Your task to perform on an android device: Open the stopwatch Image 0: 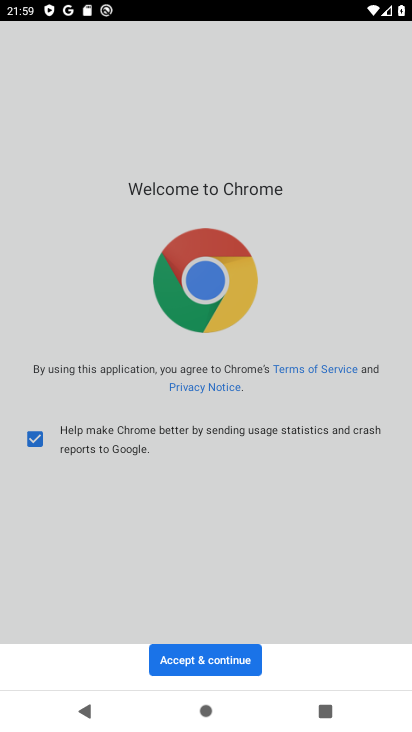
Step 0: press home button
Your task to perform on an android device: Open the stopwatch Image 1: 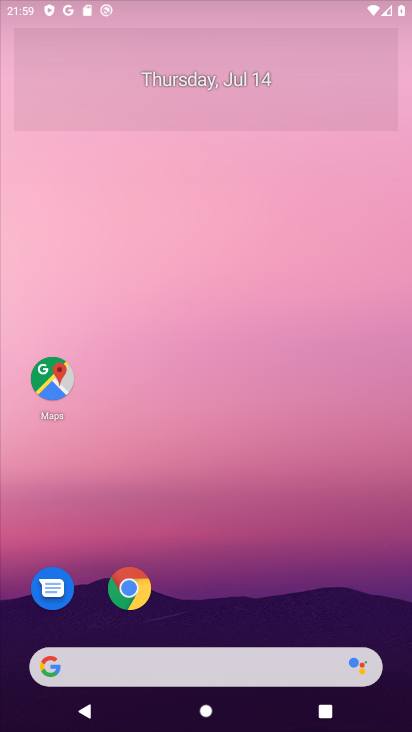
Step 1: drag from (231, 570) to (259, 87)
Your task to perform on an android device: Open the stopwatch Image 2: 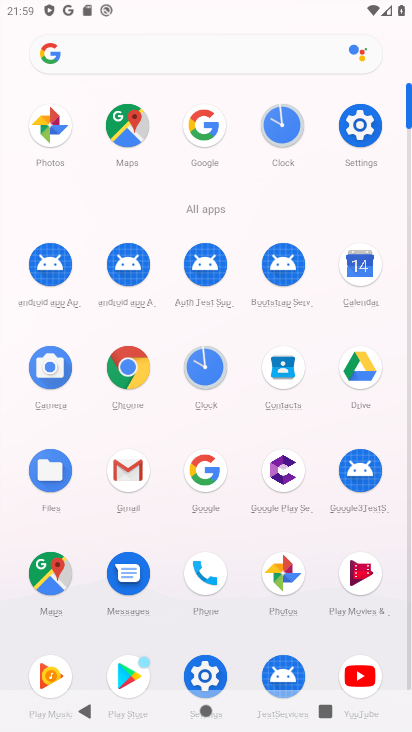
Step 2: click (201, 367)
Your task to perform on an android device: Open the stopwatch Image 3: 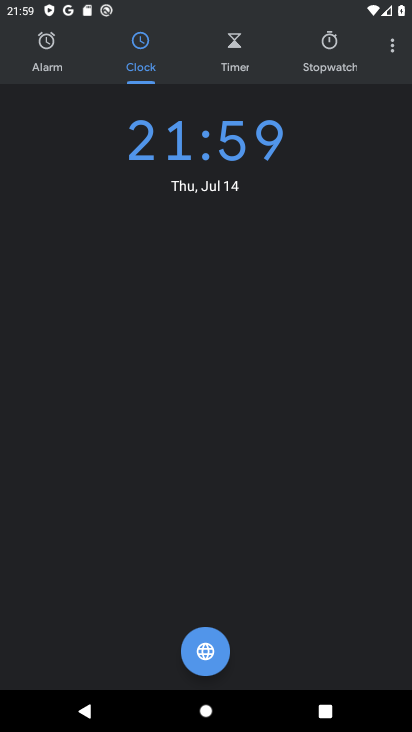
Step 3: click (330, 52)
Your task to perform on an android device: Open the stopwatch Image 4: 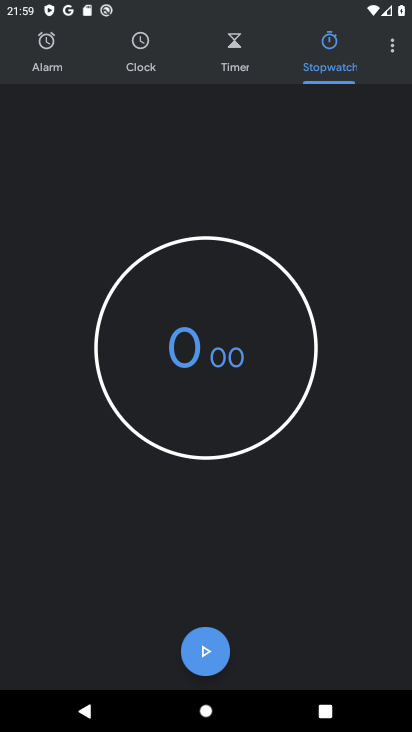
Step 4: click (203, 654)
Your task to perform on an android device: Open the stopwatch Image 5: 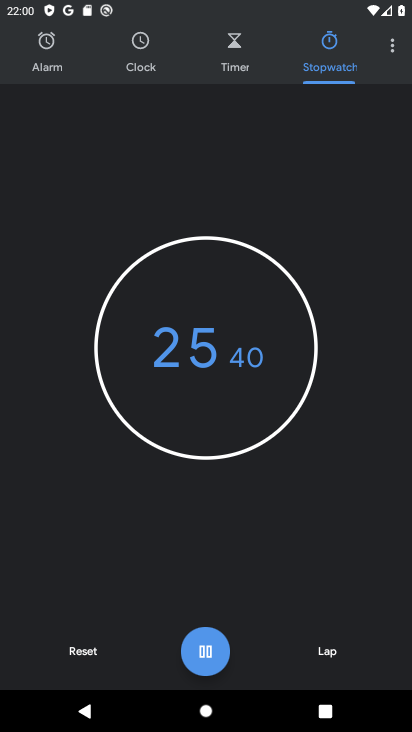
Step 5: task complete